Your task to perform on an android device: Open Chrome and go to the settings page Image 0: 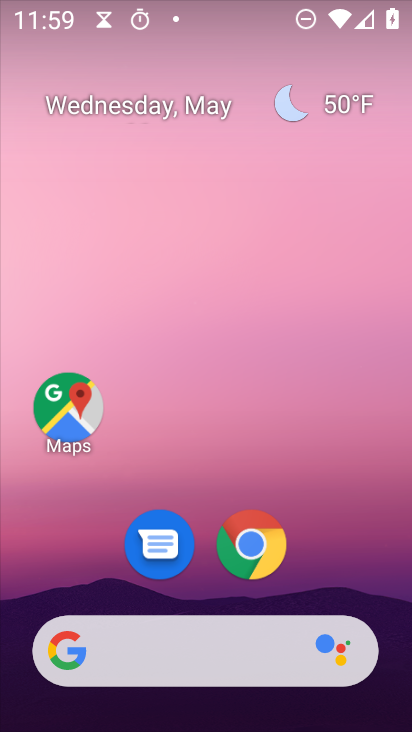
Step 0: click (251, 540)
Your task to perform on an android device: Open Chrome and go to the settings page Image 1: 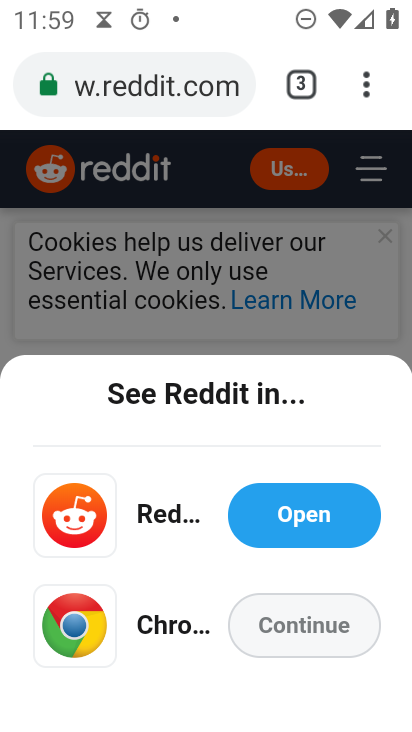
Step 1: click (373, 103)
Your task to perform on an android device: Open Chrome and go to the settings page Image 2: 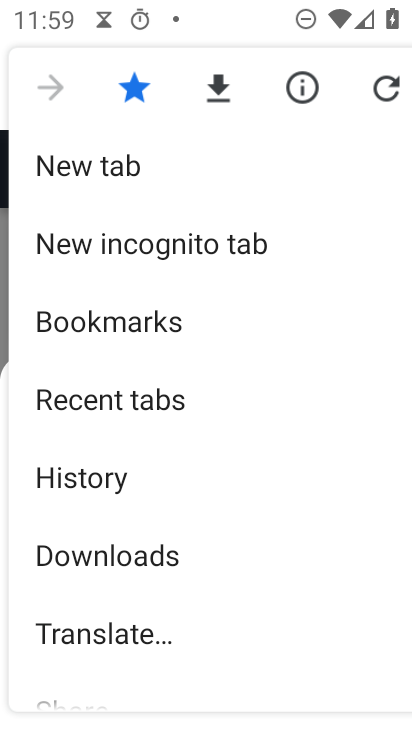
Step 2: drag from (67, 589) to (95, 121)
Your task to perform on an android device: Open Chrome and go to the settings page Image 3: 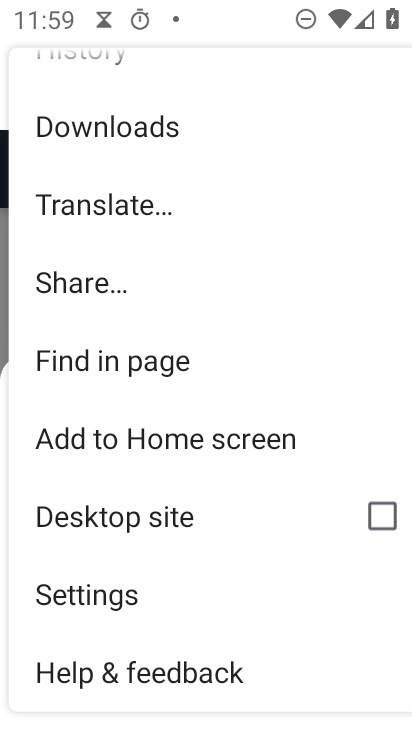
Step 3: click (157, 614)
Your task to perform on an android device: Open Chrome and go to the settings page Image 4: 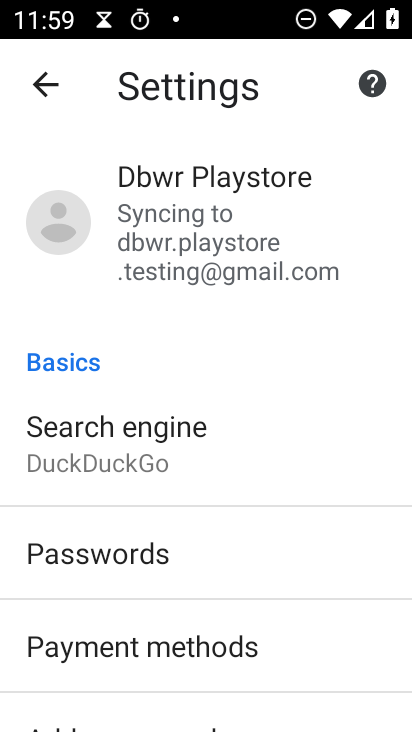
Step 4: task complete